Your task to perform on an android device: open app "Instagram" (install if not already installed) and enter user name: "nobler@yahoo.com" and password: "foraging" Image 0: 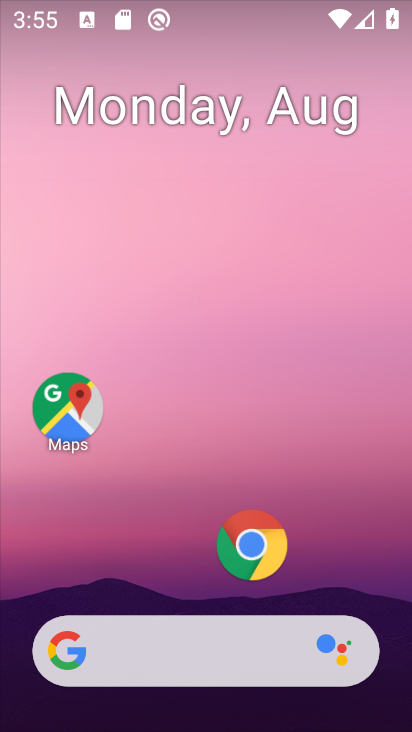
Step 0: drag from (135, 603) to (233, 130)
Your task to perform on an android device: open app "Instagram" (install if not already installed) and enter user name: "nobler@yahoo.com" and password: "foraging" Image 1: 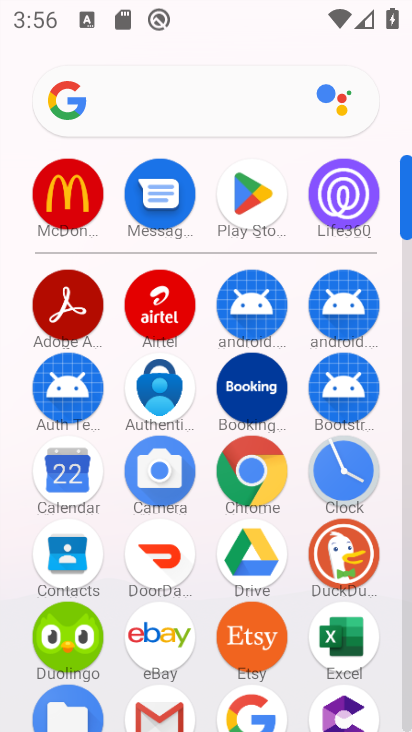
Step 1: click (284, 184)
Your task to perform on an android device: open app "Instagram" (install if not already installed) and enter user name: "nobler@yahoo.com" and password: "foraging" Image 2: 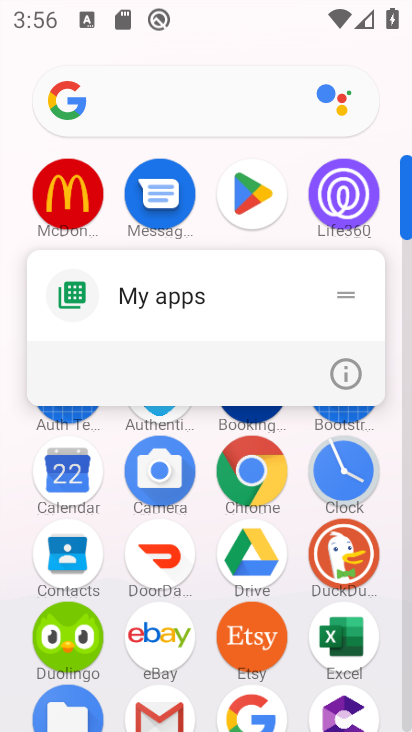
Step 2: click (257, 195)
Your task to perform on an android device: open app "Instagram" (install if not already installed) and enter user name: "nobler@yahoo.com" and password: "foraging" Image 3: 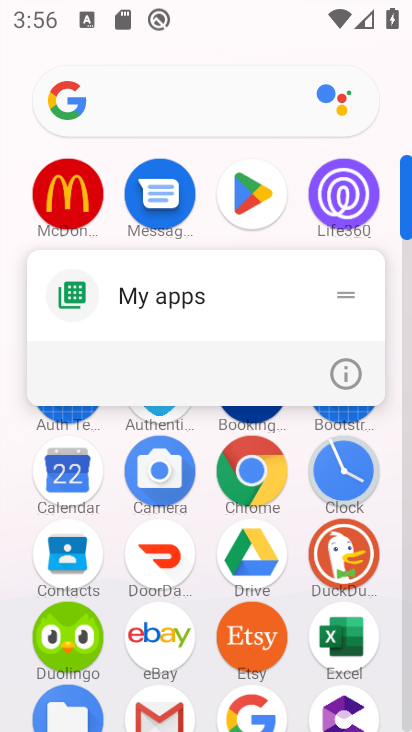
Step 3: click (255, 195)
Your task to perform on an android device: open app "Instagram" (install if not already installed) and enter user name: "nobler@yahoo.com" and password: "foraging" Image 4: 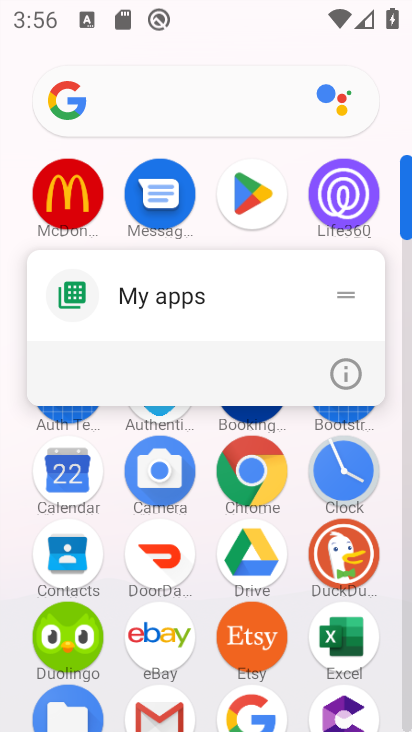
Step 4: click (256, 195)
Your task to perform on an android device: open app "Instagram" (install if not already installed) and enter user name: "nobler@yahoo.com" and password: "foraging" Image 5: 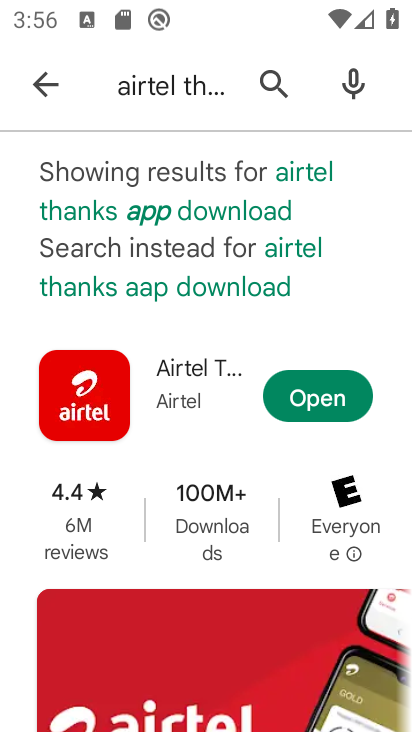
Step 5: click (283, 77)
Your task to perform on an android device: open app "Instagram" (install if not already installed) and enter user name: "nobler@yahoo.com" and password: "foraging" Image 6: 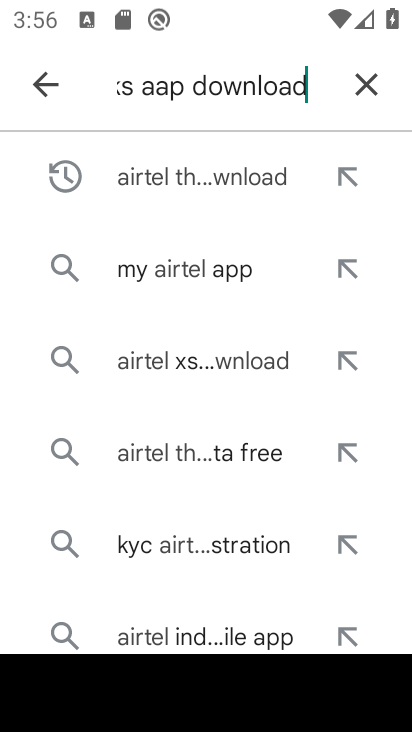
Step 6: click (381, 81)
Your task to perform on an android device: open app "Instagram" (install if not already installed) and enter user name: "nobler@yahoo.com" and password: "foraging" Image 7: 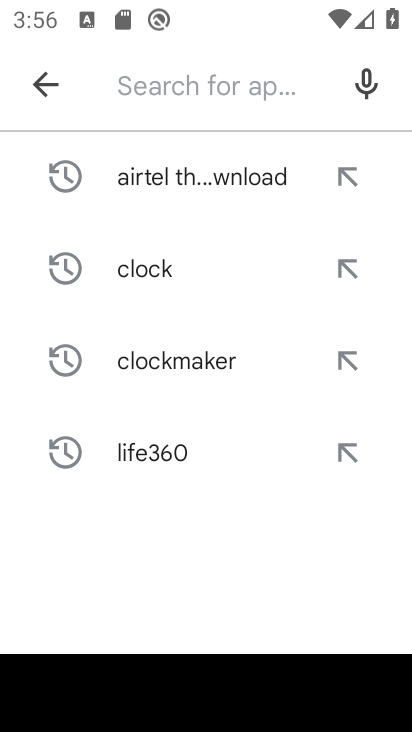
Step 7: click (176, 81)
Your task to perform on an android device: open app "Instagram" (install if not already installed) and enter user name: "nobler@yahoo.com" and password: "foraging" Image 8: 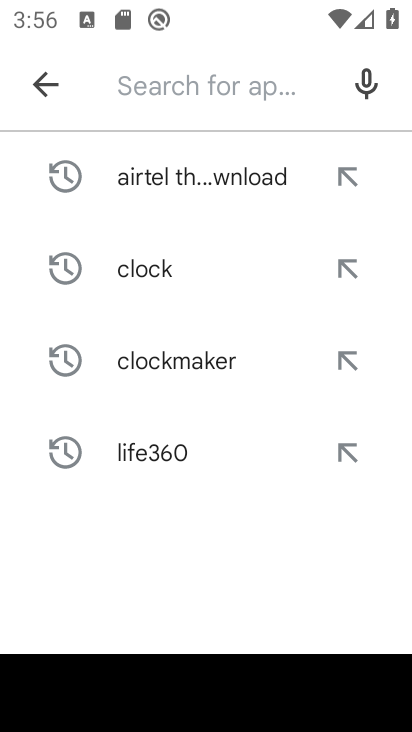
Step 8: type "Instagram"
Your task to perform on an android device: open app "Instagram" (install if not already installed) and enter user name: "nobler@yahoo.com" and password: "foraging" Image 9: 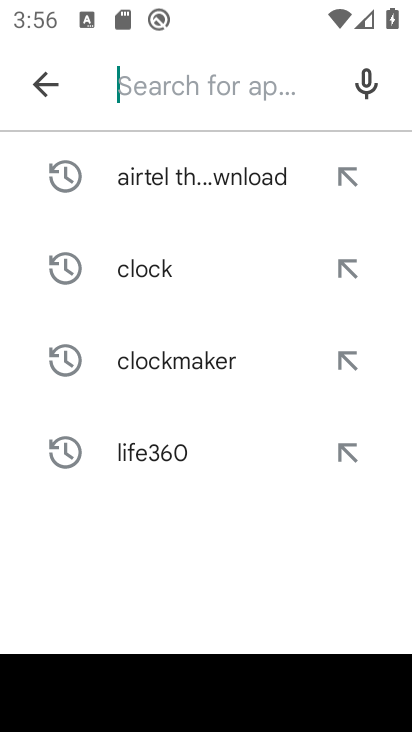
Step 9: click (197, 564)
Your task to perform on an android device: open app "Instagram" (install if not already installed) and enter user name: "nobler@yahoo.com" and password: "foraging" Image 10: 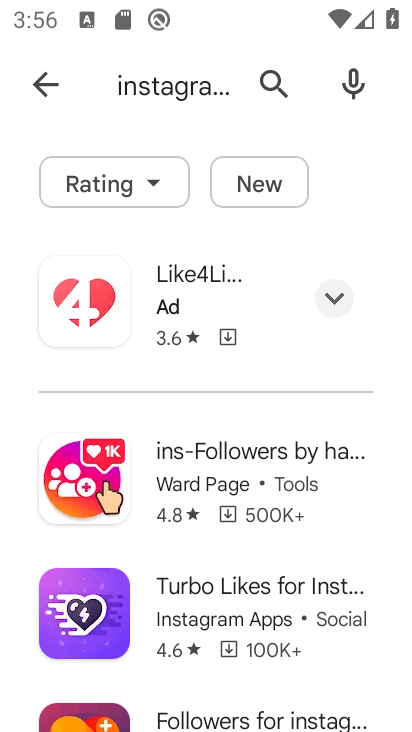
Step 10: task complete